Your task to perform on an android device: turn off location Image 0: 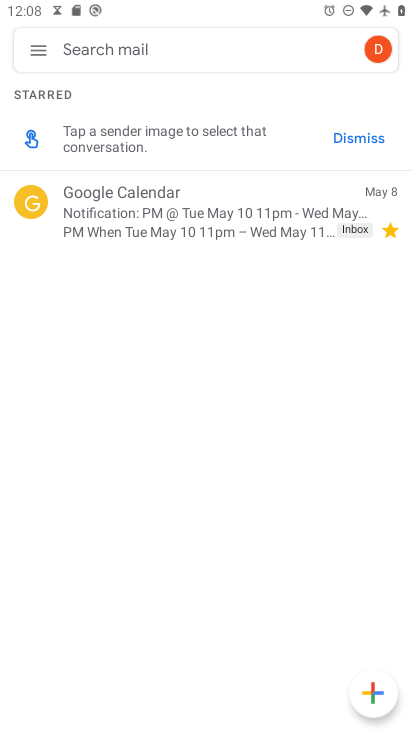
Step 0: press home button
Your task to perform on an android device: turn off location Image 1: 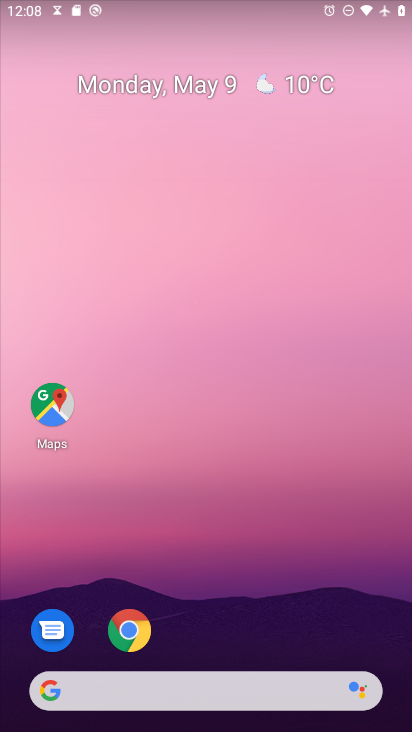
Step 1: drag from (155, 699) to (310, 142)
Your task to perform on an android device: turn off location Image 2: 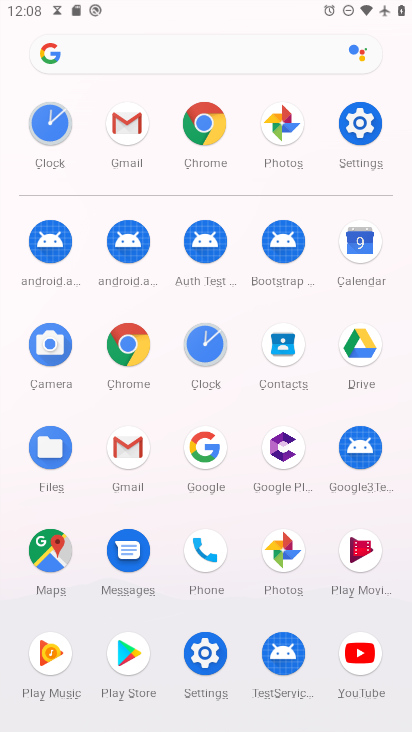
Step 2: click (357, 124)
Your task to perform on an android device: turn off location Image 3: 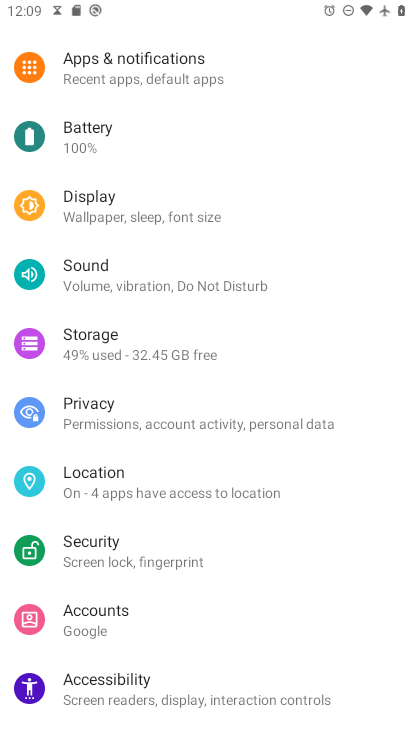
Step 3: click (134, 486)
Your task to perform on an android device: turn off location Image 4: 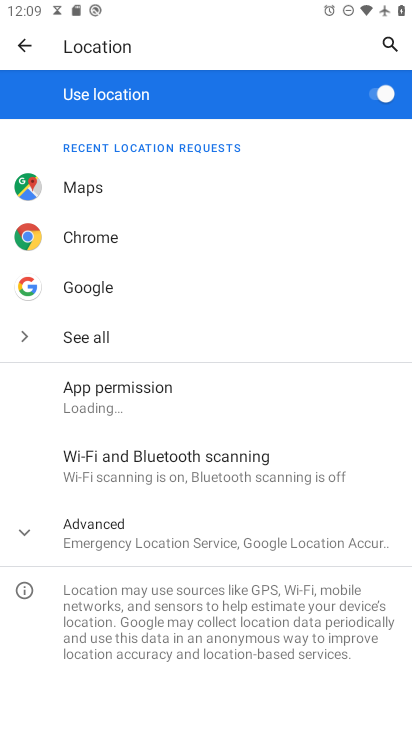
Step 4: click (372, 90)
Your task to perform on an android device: turn off location Image 5: 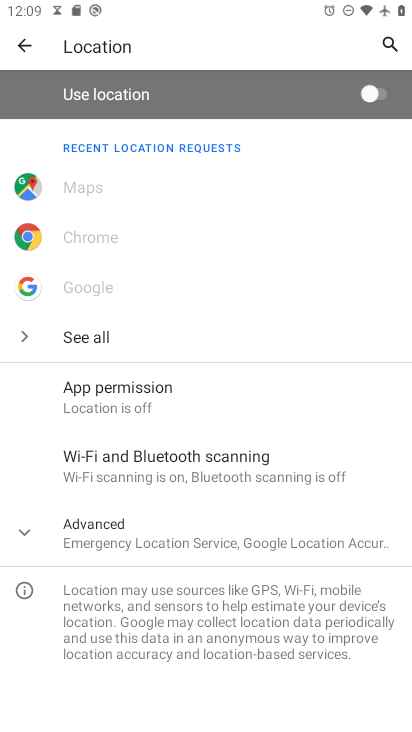
Step 5: task complete